Your task to perform on an android device: Go to privacy settings Image 0: 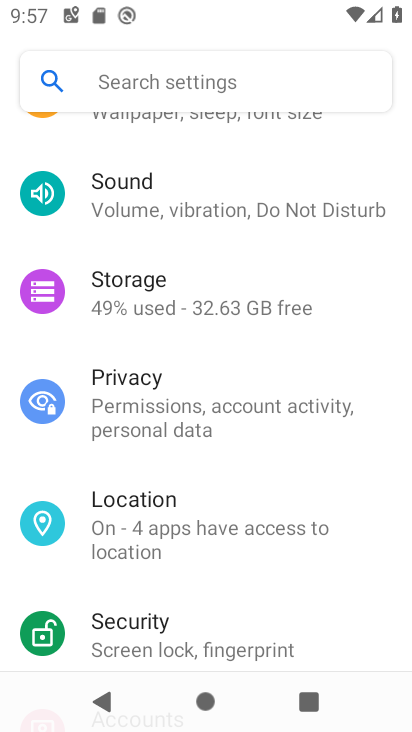
Step 0: press home button
Your task to perform on an android device: Go to privacy settings Image 1: 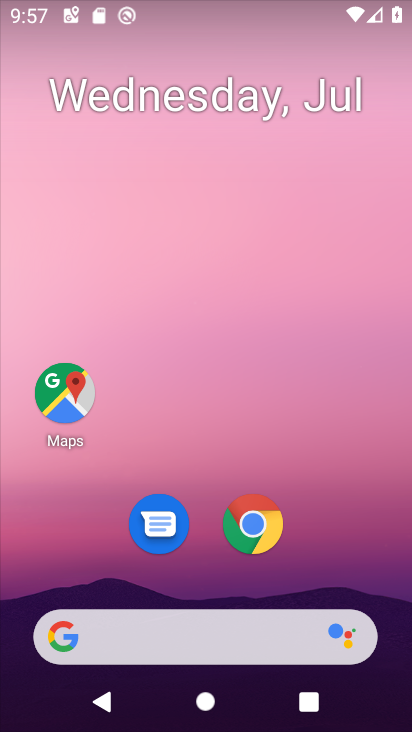
Step 1: drag from (355, 529) to (396, 102)
Your task to perform on an android device: Go to privacy settings Image 2: 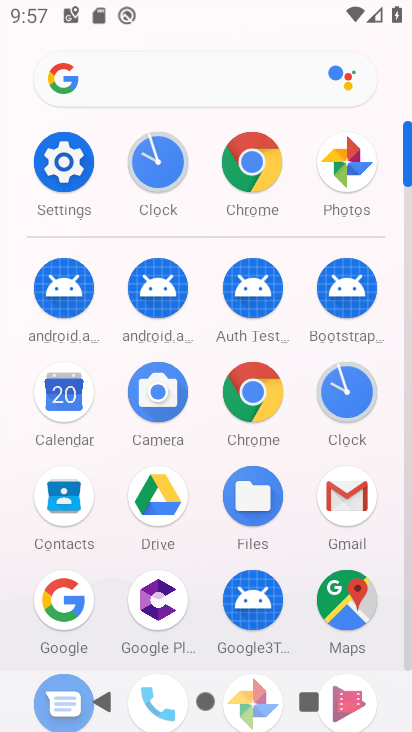
Step 2: click (53, 155)
Your task to perform on an android device: Go to privacy settings Image 3: 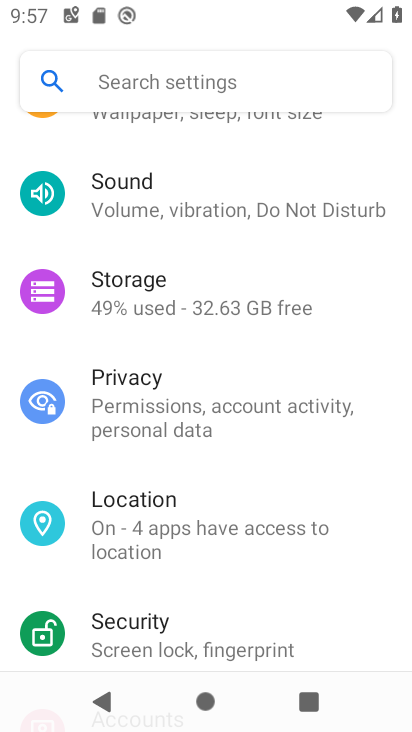
Step 3: click (232, 403)
Your task to perform on an android device: Go to privacy settings Image 4: 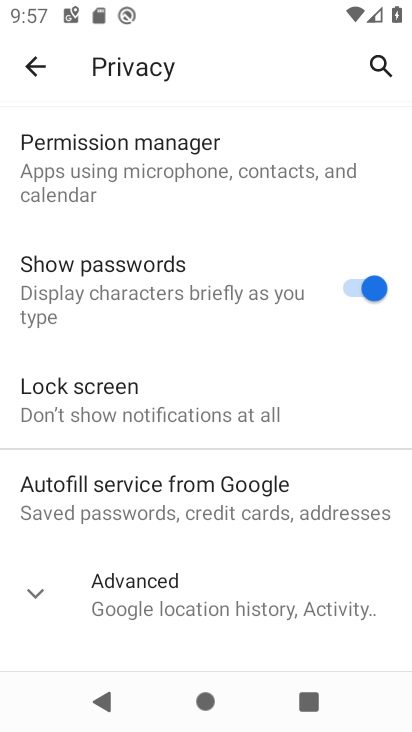
Step 4: task complete